Your task to perform on an android device: change text size in settings app Image 0: 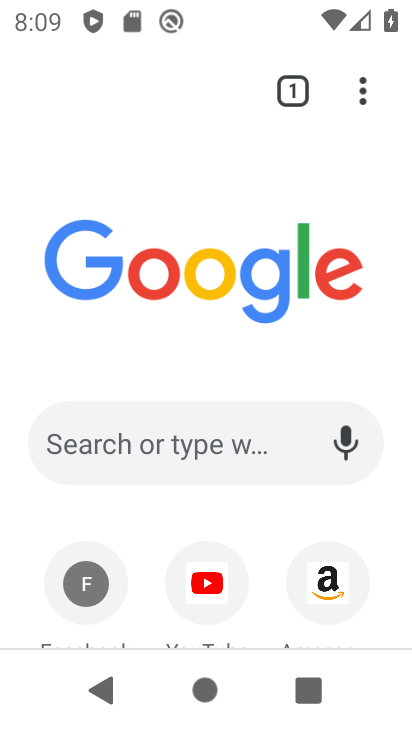
Step 0: press home button
Your task to perform on an android device: change text size in settings app Image 1: 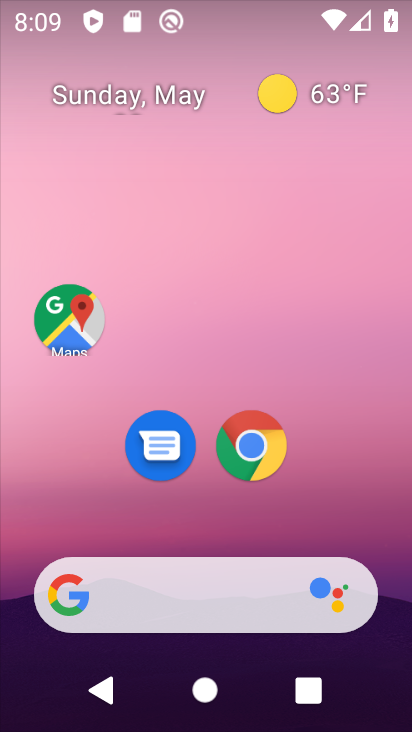
Step 1: drag from (201, 533) to (225, 206)
Your task to perform on an android device: change text size in settings app Image 2: 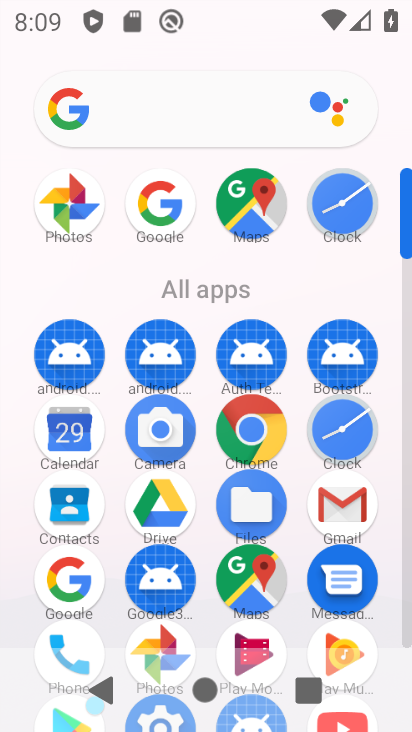
Step 2: drag from (191, 529) to (198, 252)
Your task to perform on an android device: change text size in settings app Image 3: 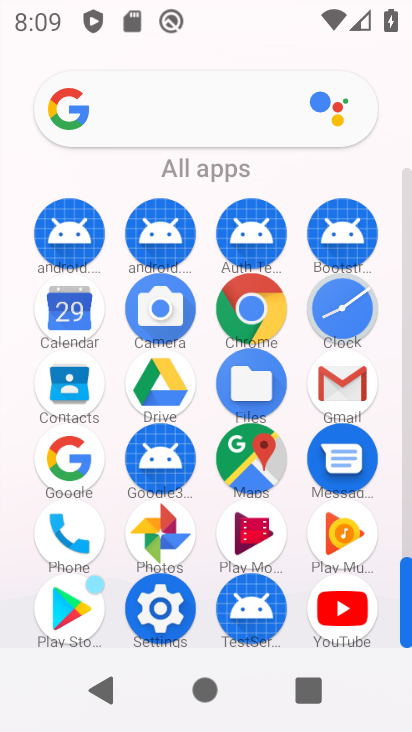
Step 3: click (165, 603)
Your task to perform on an android device: change text size in settings app Image 4: 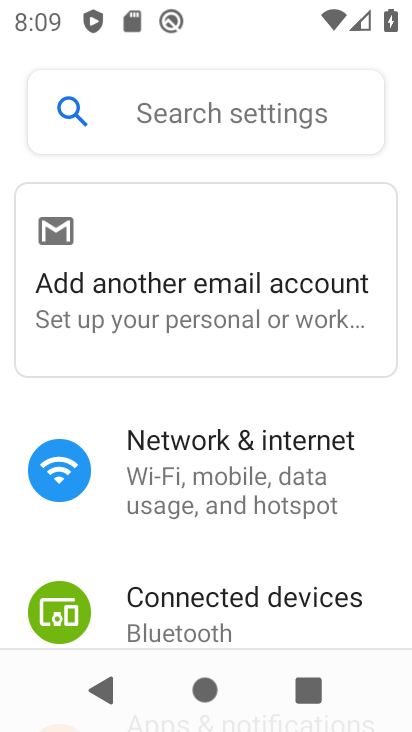
Step 4: drag from (172, 580) to (212, 262)
Your task to perform on an android device: change text size in settings app Image 5: 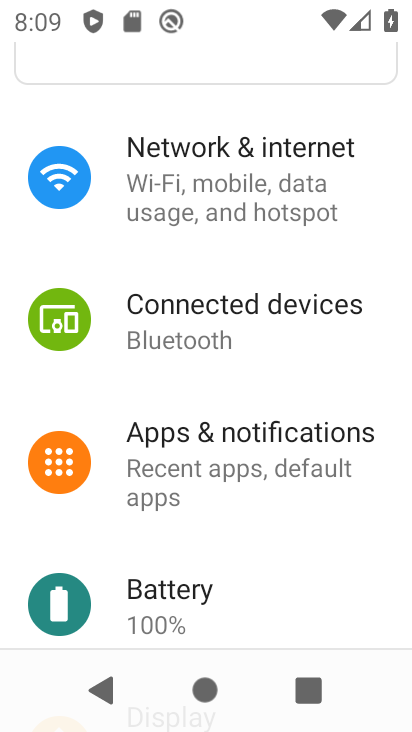
Step 5: drag from (239, 486) to (261, 219)
Your task to perform on an android device: change text size in settings app Image 6: 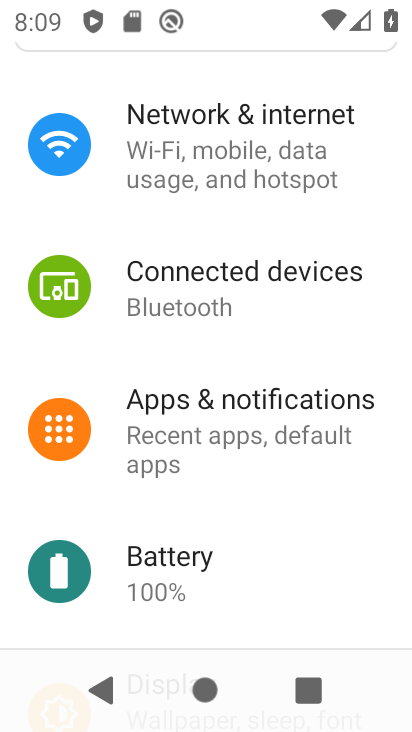
Step 6: drag from (242, 581) to (252, 314)
Your task to perform on an android device: change text size in settings app Image 7: 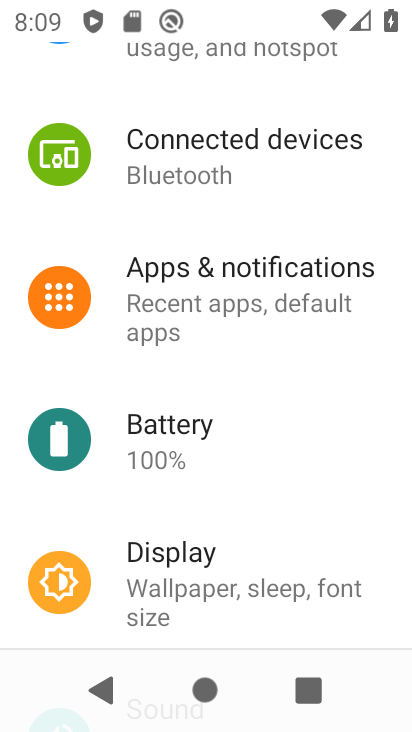
Step 7: click (230, 569)
Your task to perform on an android device: change text size in settings app Image 8: 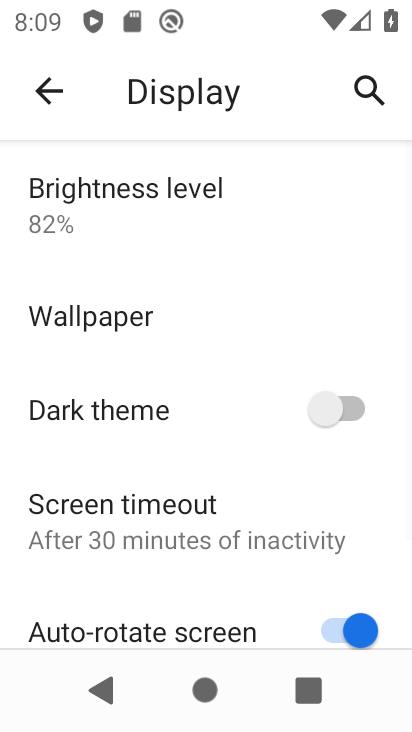
Step 8: drag from (107, 579) to (107, 281)
Your task to perform on an android device: change text size in settings app Image 9: 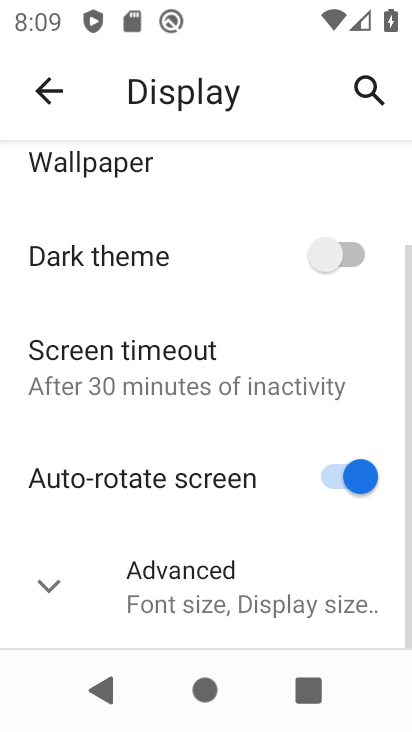
Step 9: click (140, 553)
Your task to perform on an android device: change text size in settings app Image 10: 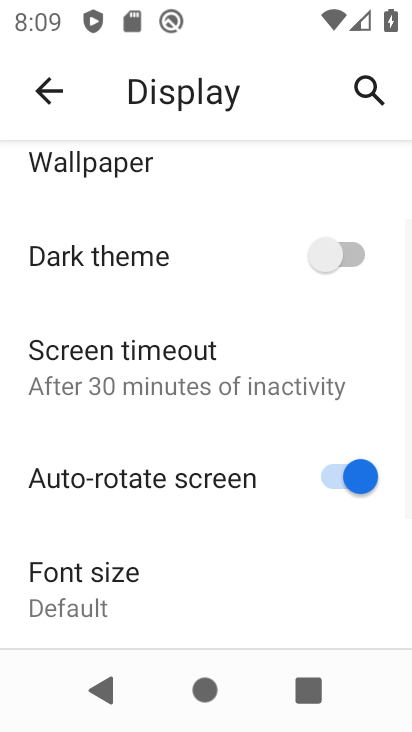
Step 10: drag from (152, 589) to (154, 372)
Your task to perform on an android device: change text size in settings app Image 11: 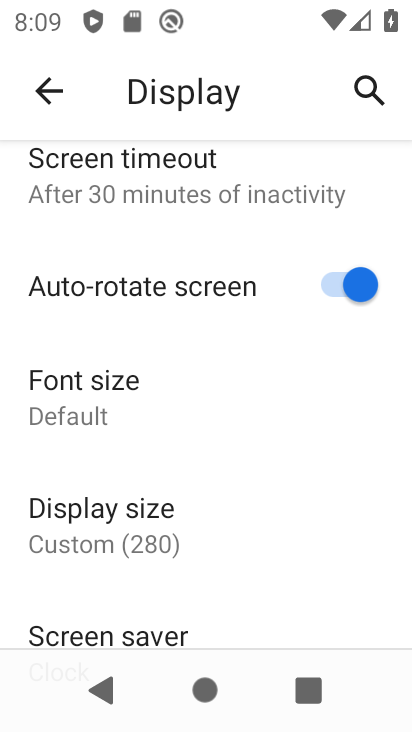
Step 11: click (143, 388)
Your task to perform on an android device: change text size in settings app Image 12: 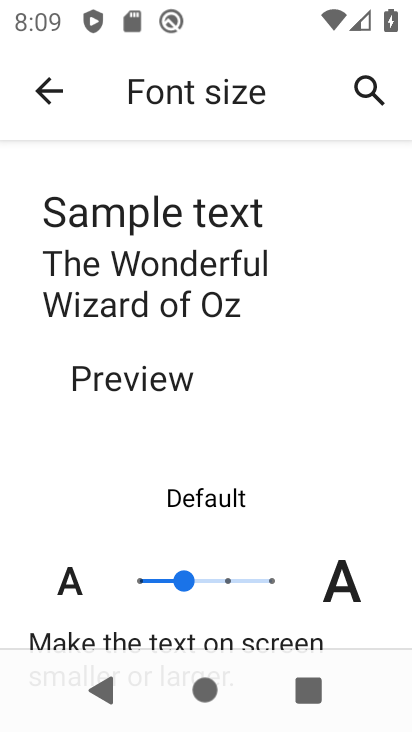
Step 12: click (146, 580)
Your task to perform on an android device: change text size in settings app Image 13: 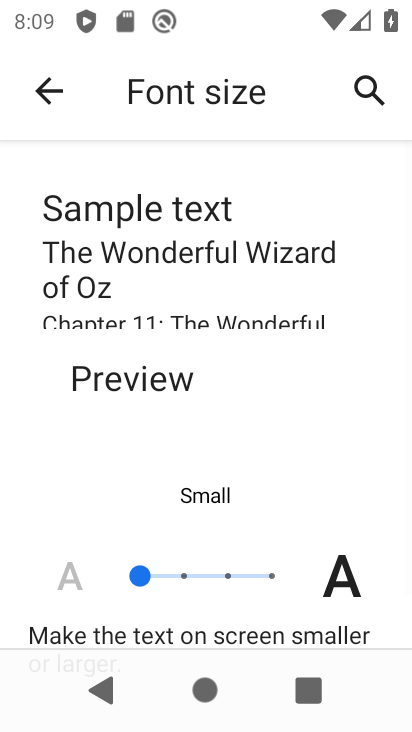
Step 13: task complete